Your task to perform on an android device: Open Chrome and go to settings Image 0: 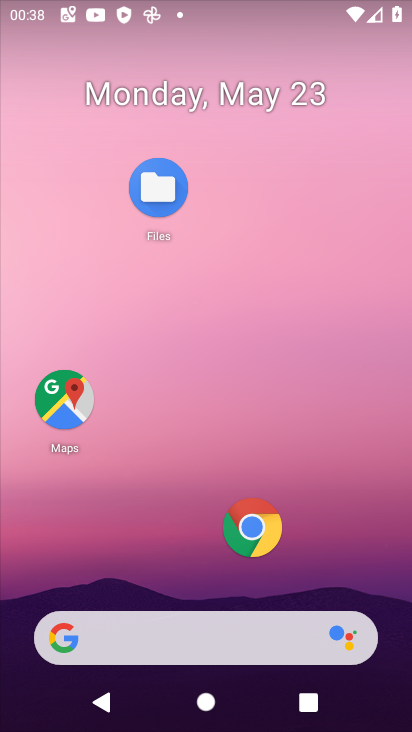
Step 0: click (253, 531)
Your task to perform on an android device: Open Chrome and go to settings Image 1: 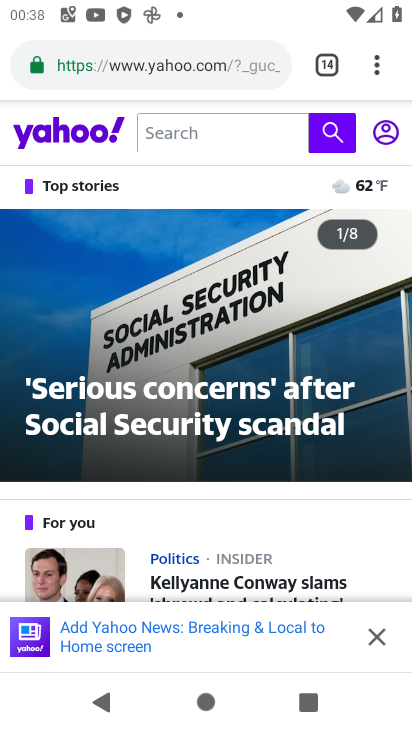
Step 1: click (374, 58)
Your task to perform on an android device: Open Chrome and go to settings Image 2: 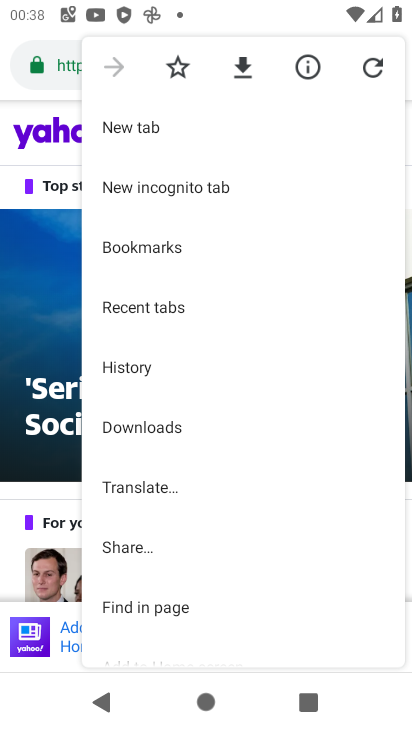
Step 2: drag from (259, 499) to (256, 155)
Your task to perform on an android device: Open Chrome and go to settings Image 3: 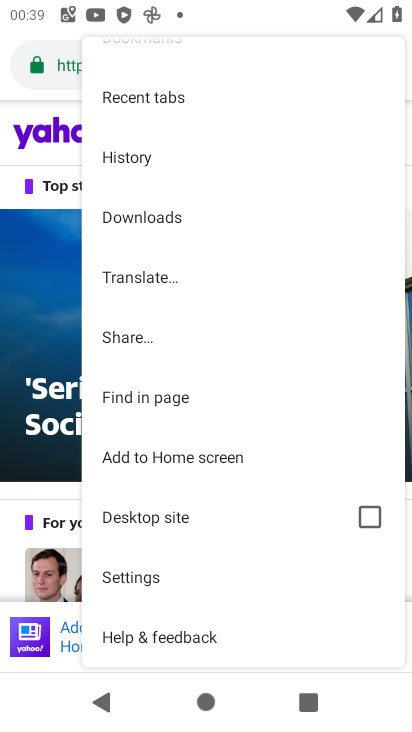
Step 3: click (136, 568)
Your task to perform on an android device: Open Chrome and go to settings Image 4: 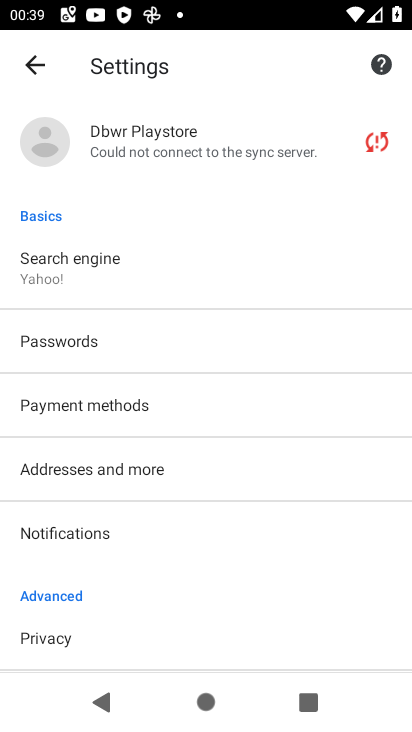
Step 4: task complete